Your task to perform on an android device: turn on the 12-hour format for clock Image 0: 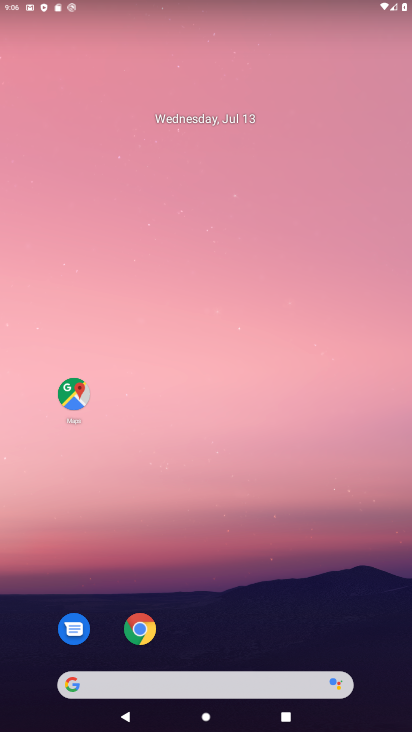
Step 0: drag from (303, 610) to (392, 0)
Your task to perform on an android device: turn on the 12-hour format for clock Image 1: 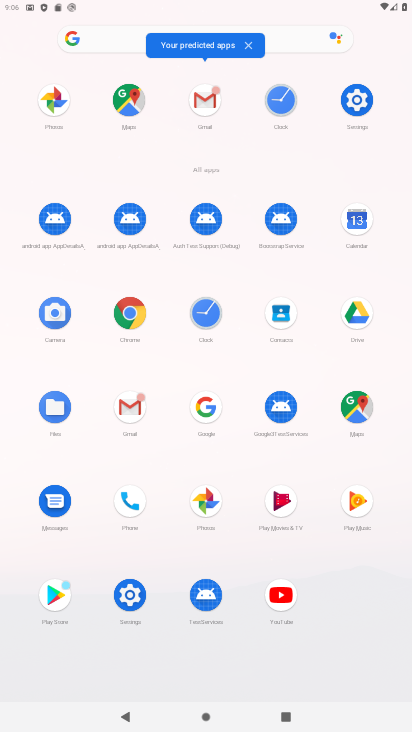
Step 1: click (212, 319)
Your task to perform on an android device: turn on the 12-hour format for clock Image 2: 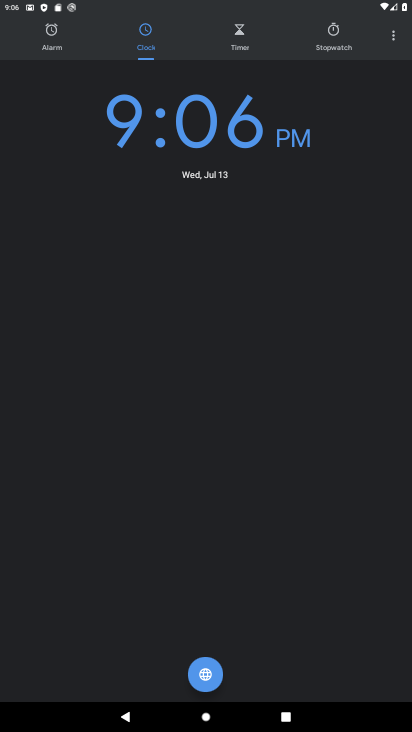
Step 2: click (390, 42)
Your task to perform on an android device: turn on the 12-hour format for clock Image 3: 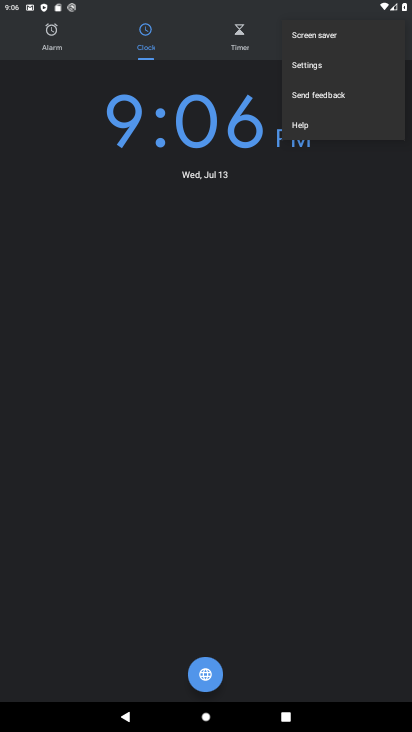
Step 3: click (317, 65)
Your task to perform on an android device: turn on the 12-hour format for clock Image 4: 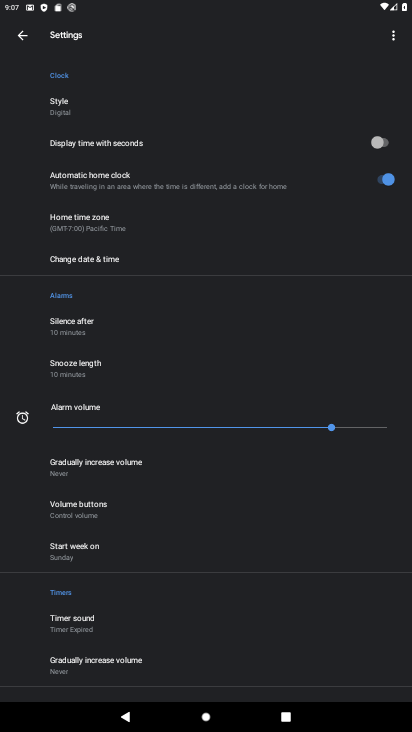
Step 4: click (128, 257)
Your task to perform on an android device: turn on the 12-hour format for clock Image 5: 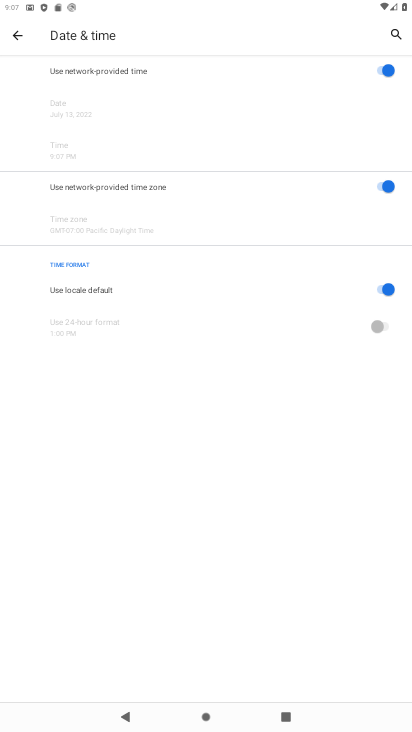
Step 5: task complete